Your task to perform on an android device: Open the map Image 0: 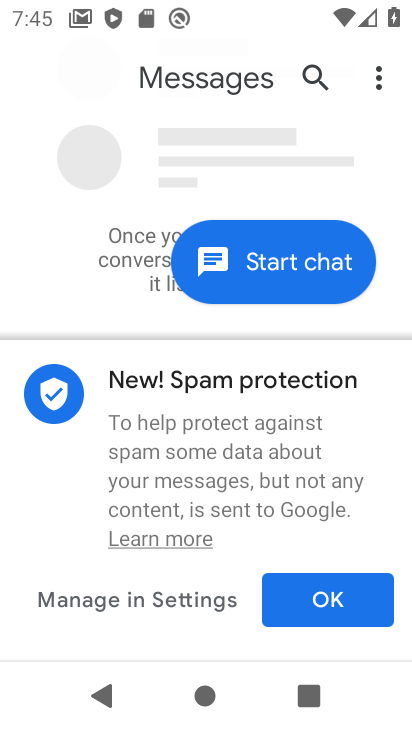
Step 0: press home button
Your task to perform on an android device: Open the map Image 1: 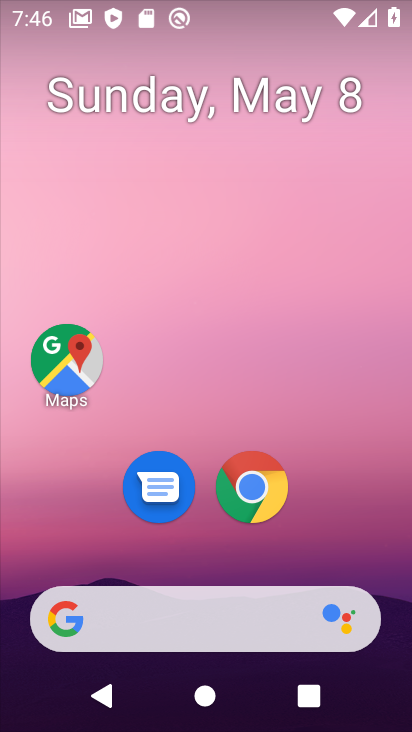
Step 1: click (67, 387)
Your task to perform on an android device: Open the map Image 2: 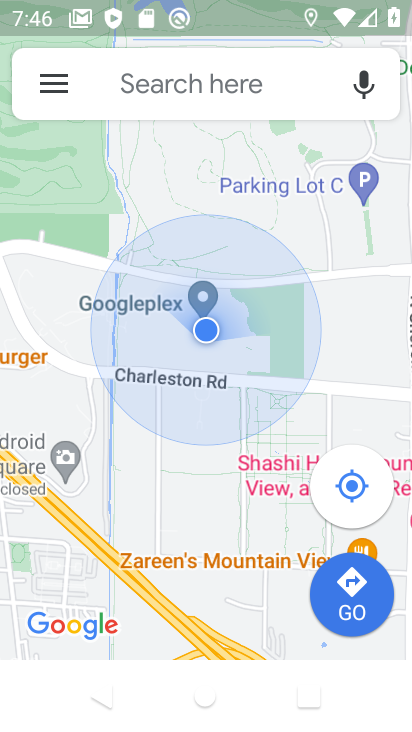
Step 2: task complete